Your task to perform on an android device: create a new album in the google photos Image 0: 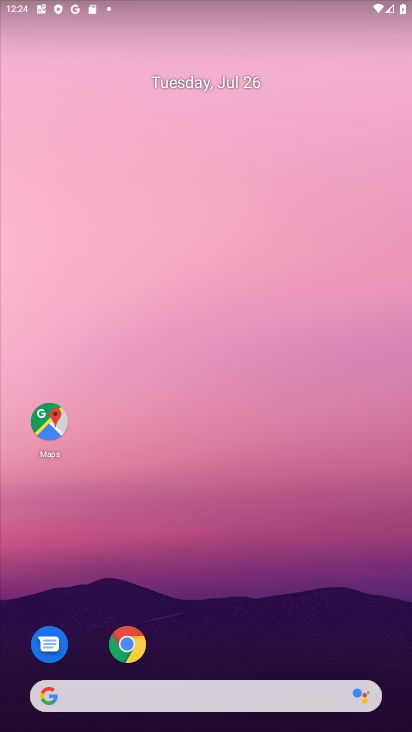
Step 0: drag from (219, 668) to (238, 39)
Your task to perform on an android device: create a new album in the google photos Image 1: 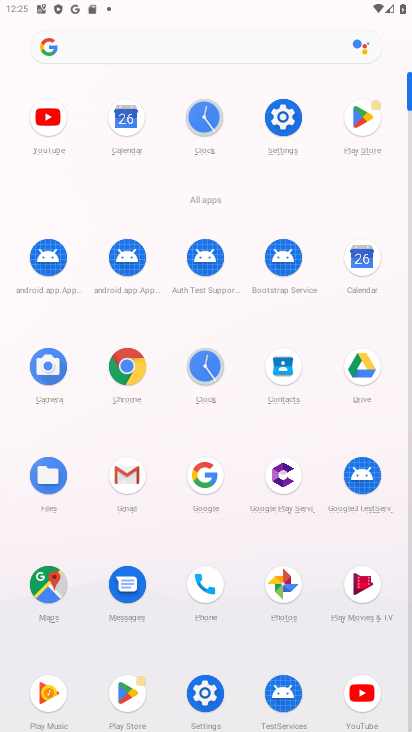
Step 1: click (287, 590)
Your task to perform on an android device: create a new album in the google photos Image 2: 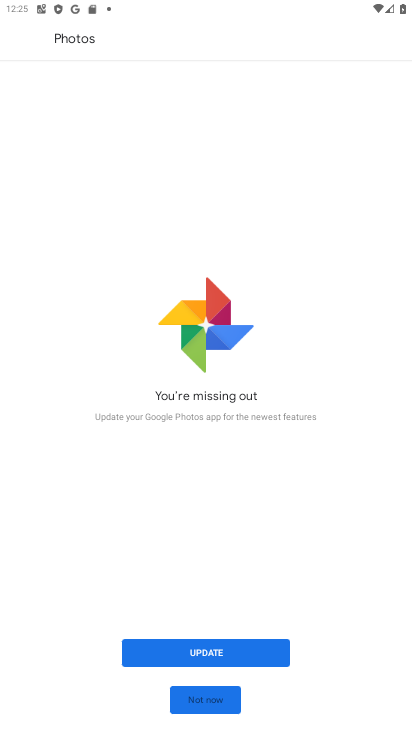
Step 2: click (209, 694)
Your task to perform on an android device: create a new album in the google photos Image 3: 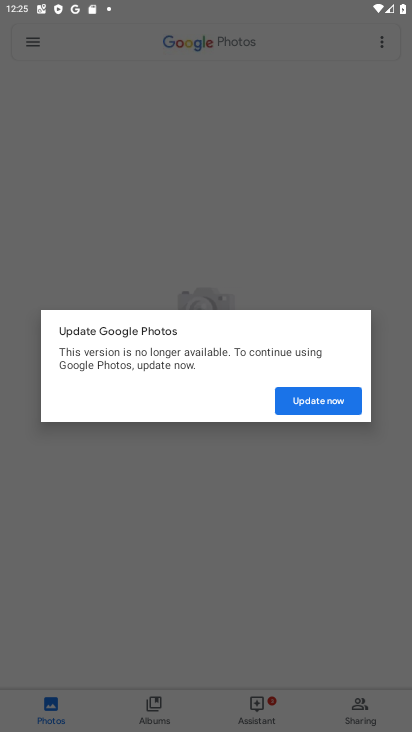
Step 3: click (322, 387)
Your task to perform on an android device: create a new album in the google photos Image 4: 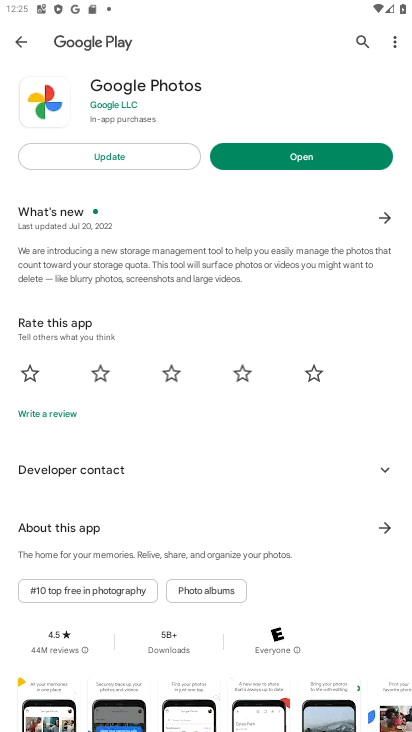
Step 4: click (287, 164)
Your task to perform on an android device: create a new album in the google photos Image 5: 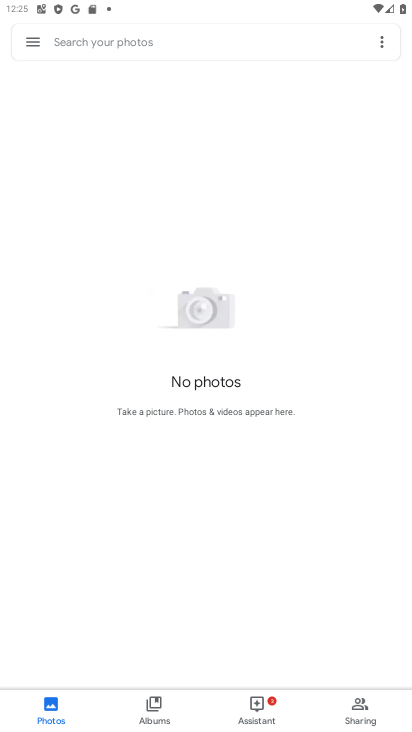
Step 5: drag from (104, 607) to (119, 671)
Your task to perform on an android device: create a new album in the google photos Image 6: 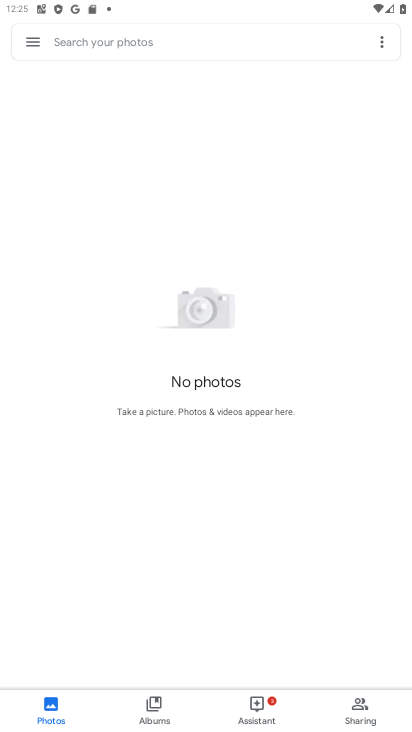
Step 6: click (148, 711)
Your task to perform on an android device: create a new album in the google photos Image 7: 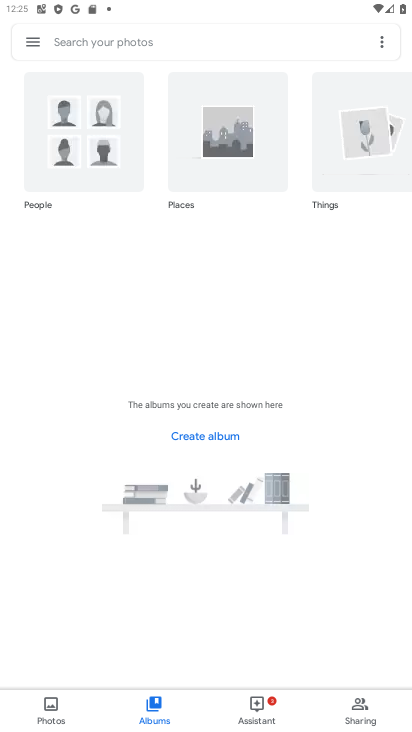
Step 7: task complete